Your task to perform on an android device: allow cookies in the chrome app Image 0: 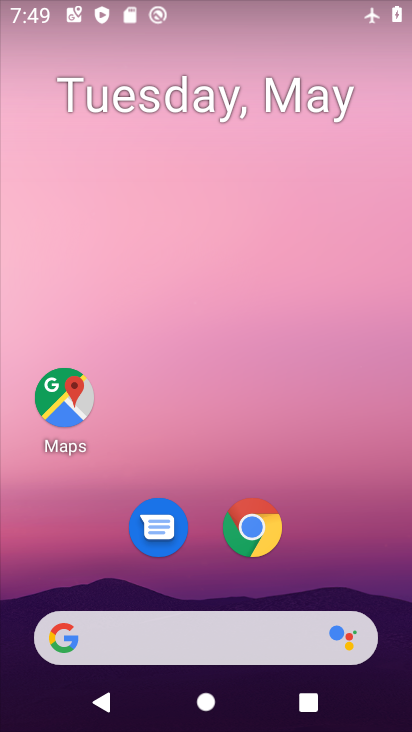
Step 0: click (252, 526)
Your task to perform on an android device: allow cookies in the chrome app Image 1: 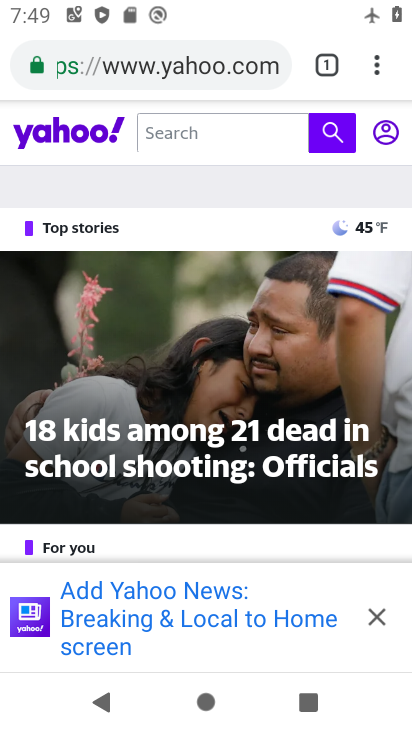
Step 1: click (376, 66)
Your task to perform on an android device: allow cookies in the chrome app Image 2: 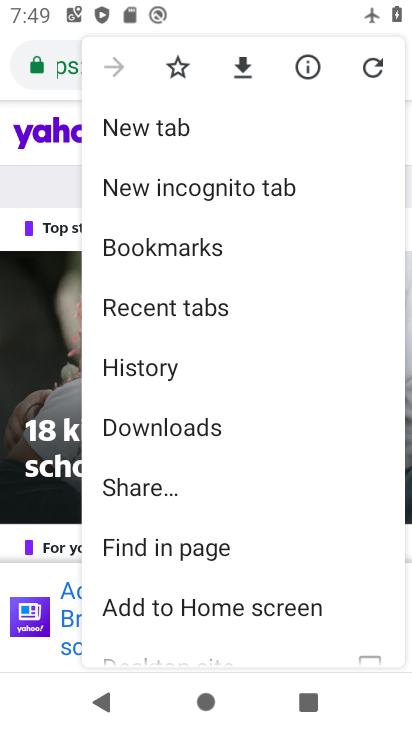
Step 2: drag from (206, 513) to (264, 407)
Your task to perform on an android device: allow cookies in the chrome app Image 3: 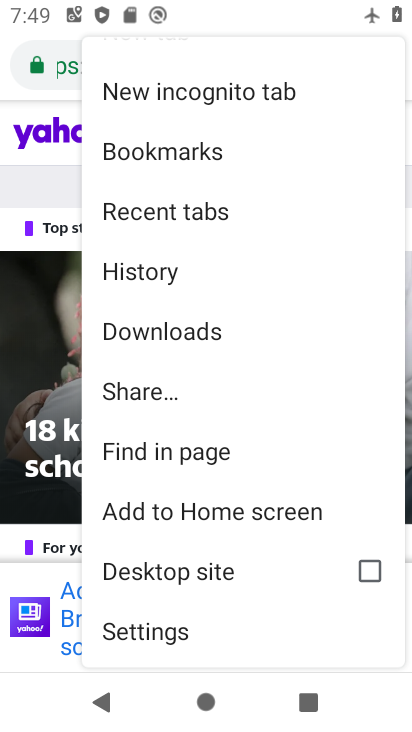
Step 3: drag from (208, 537) to (269, 449)
Your task to perform on an android device: allow cookies in the chrome app Image 4: 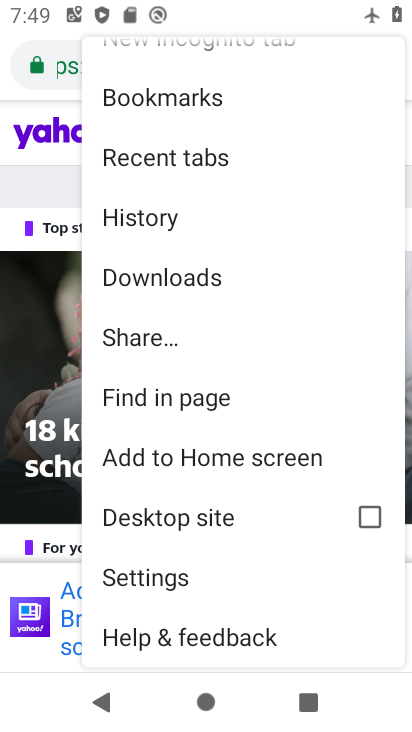
Step 4: click (124, 572)
Your task to perform on an android device: allow cookies in the chrome app Image 5: 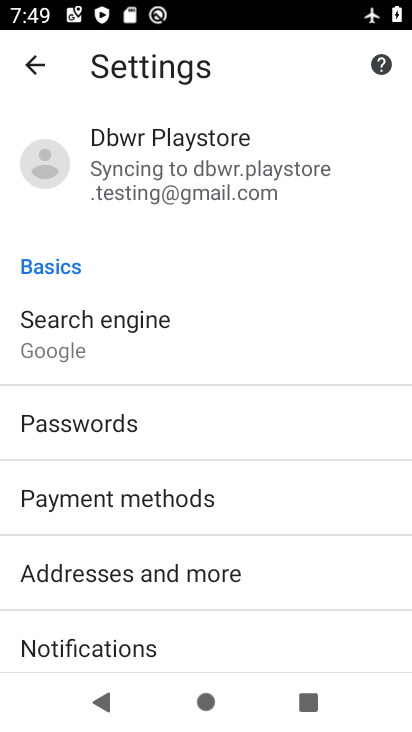
Step 5: drag from (163, 542) to (231, 453)
Your task to perform on an android device: allow cookies in the chrome app Image 6: 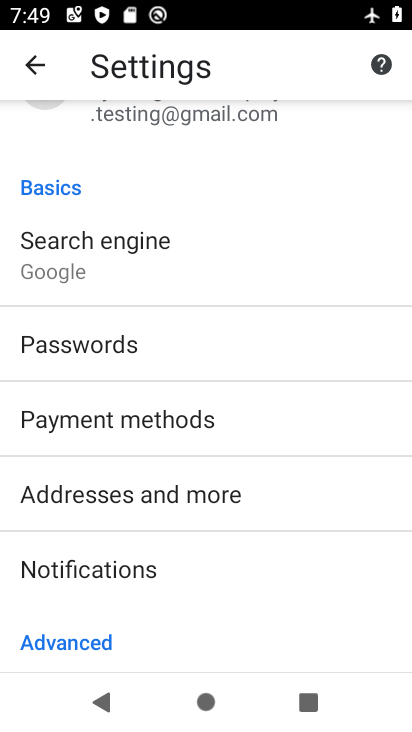
Step 6: drag from (173, 580) to (238, 458)
Your task to perform on an android device: allow cookies in the chrome app Image 7: 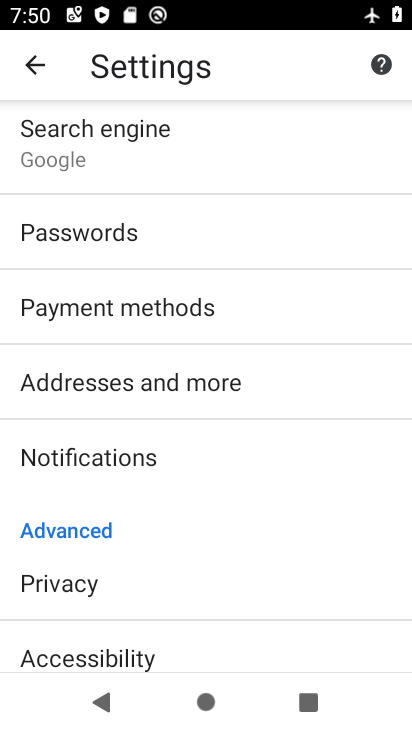
Step 7: drag from (157, 568) to (235, 476)
Your task to perform on an android device: allow cookies in the chrome app Image 8: 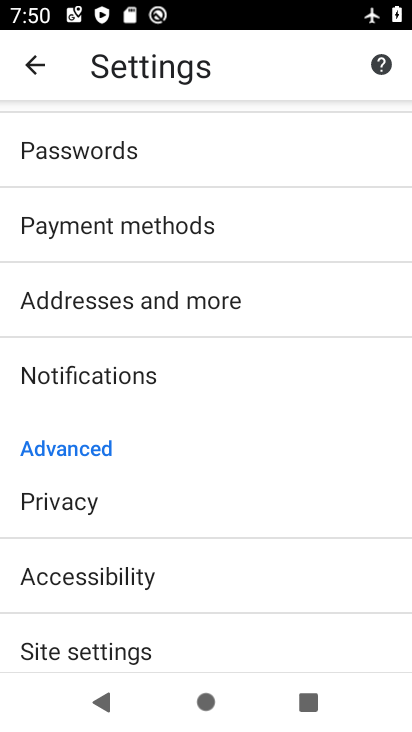
Step 8: drag from (186, 589) to (270, 480)
Your task to perform on an android device: allow cookies in the chrome app Image 9: 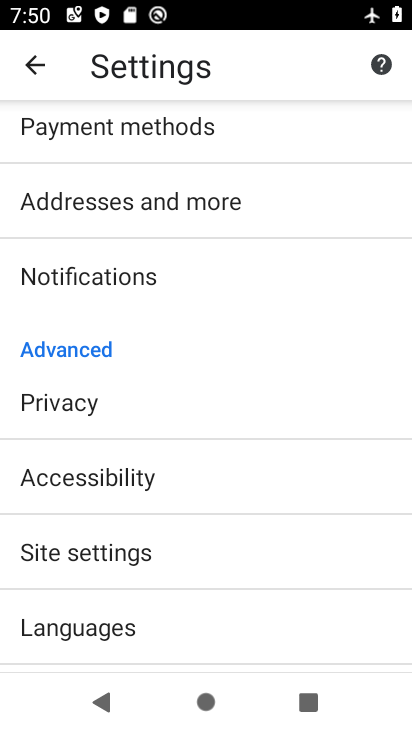
Step 9: click (104, 561)
Your task to perform on an android device: allow cookies in the chrome app Image 10: 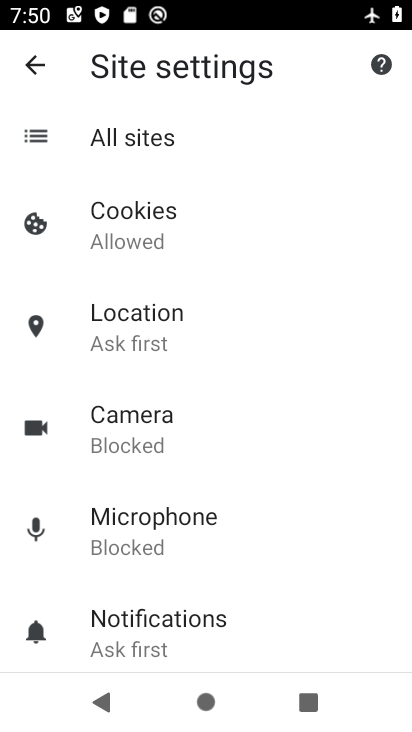
Step 10: click (150, 232)
Your task to perform on an android device: allow cookies in the chrome app Image 11: 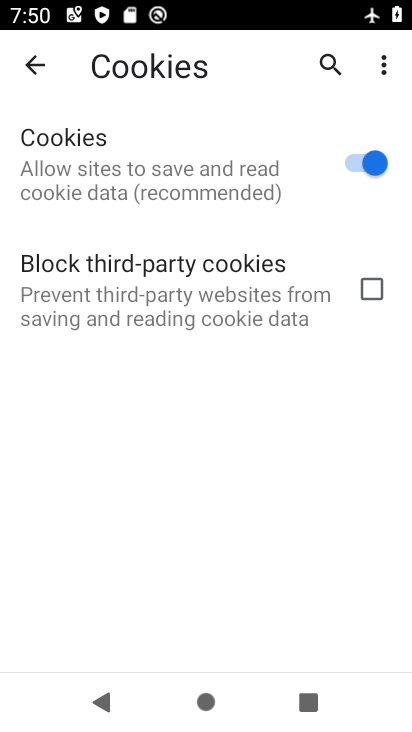
Step 11: click (368, 299)
Your task to perform on an android device: allow cookies in the chrome app Image 12: 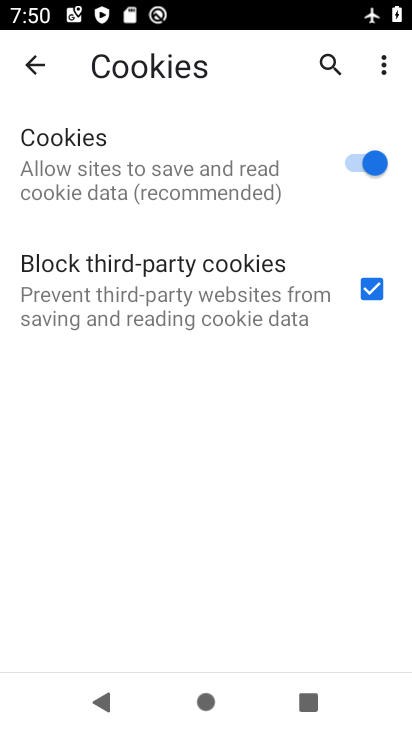
Step 12: task complete